Your task to perform on an android device: What's the weather going to be tomorrow? Image 0: 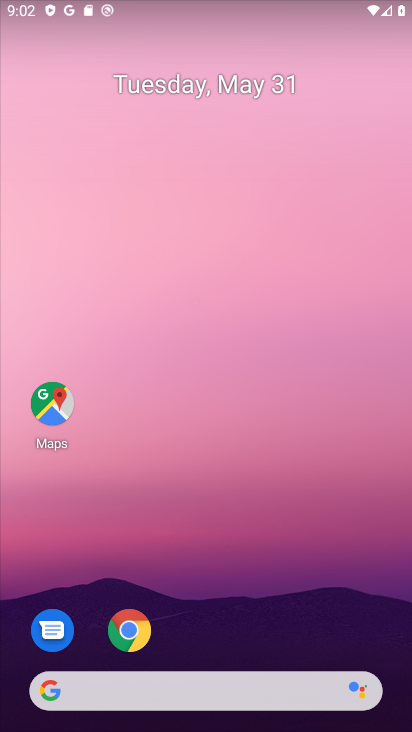
Step 0: click (208, 706)
Your task to perform on an android device: What's the weather going to be tomorrow? Image 1: 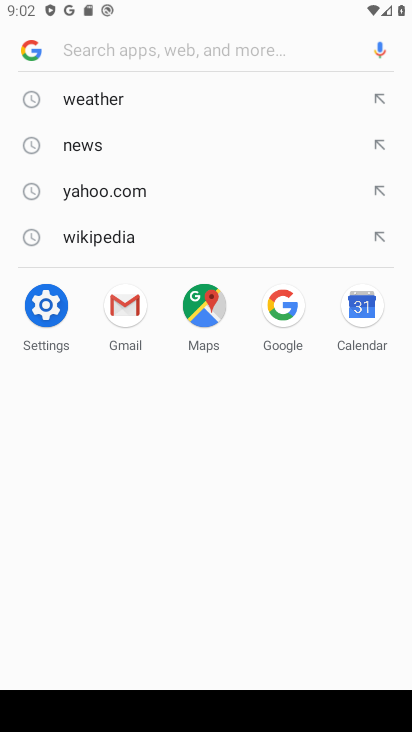
Step 1: click (130, 106)
Your task to perform on an android device: What's the weather going to be tomorrow? Image 2: 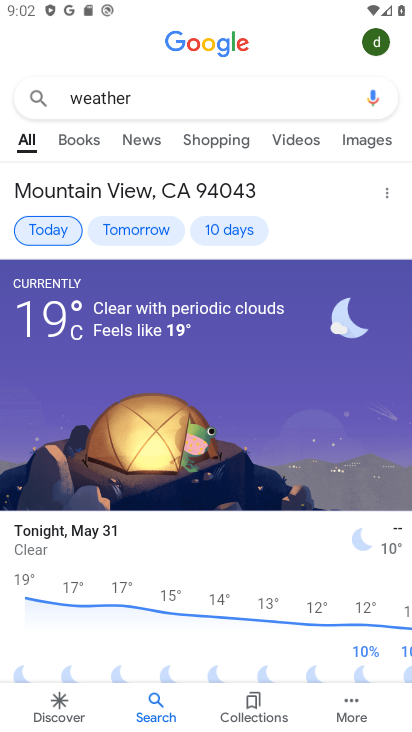
Step 2: click (129, 226)
Your task to perform on an android device: What's the weather going to be tomorrow? Image 3: 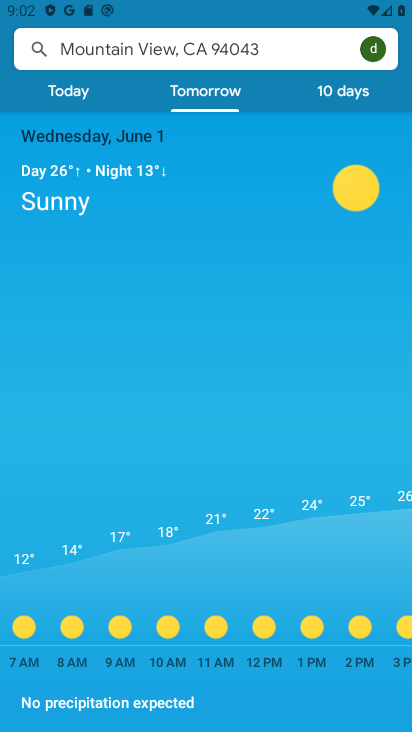
Step 3: task complete